Your task to perform on an android device: check data usage Image 0: 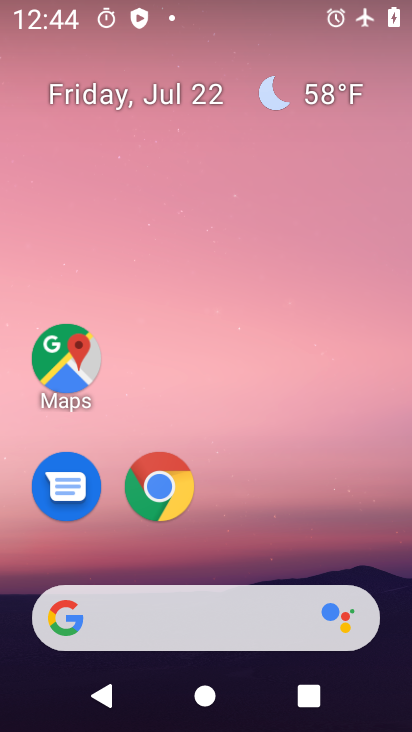
Step 0: drag from (388, 539) to (411, 360)
Your task to perform on an android device: check data usage Image 1: 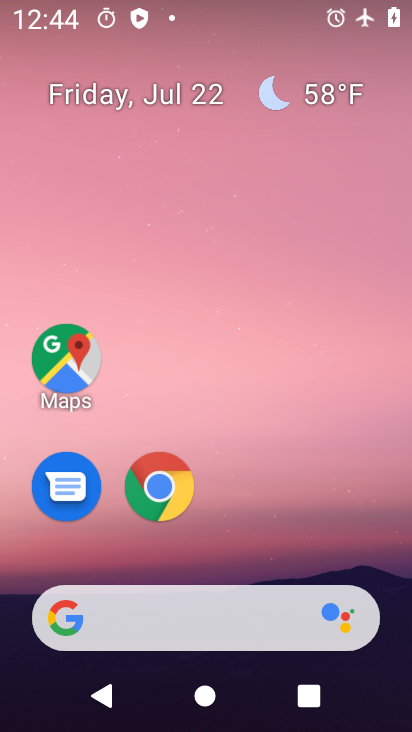
Step 1: drag from (288, 432) to (324, 25)
Your task to perform on an android device: check data usage Image 2: 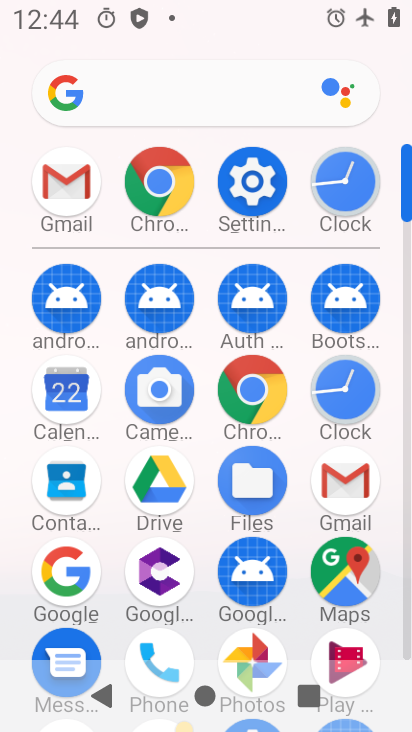
Step 2: click (261, 187)
Your task to perform on an android device: check data usage Image 3: 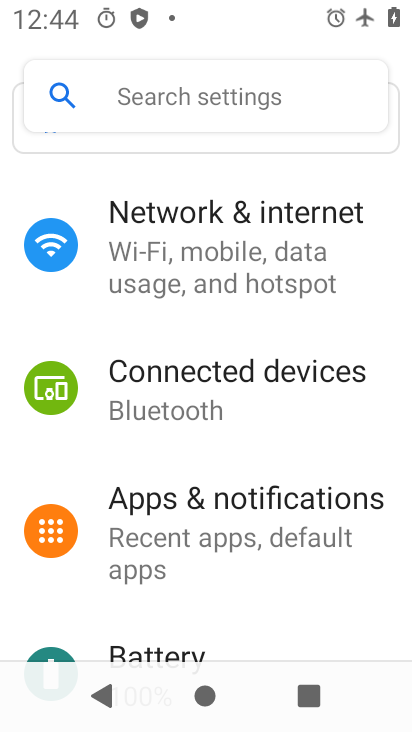
Step 3: drag from (357, 437) to (350, 347)
Your task to perform on an android device: check data usage Image 4: 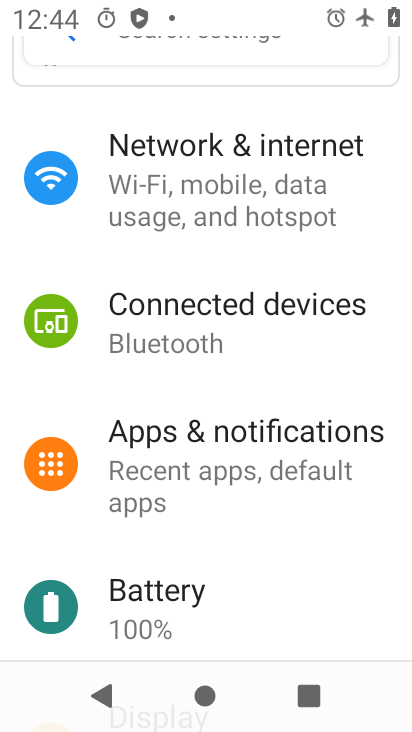
Step 4: drag from (351, 470) to (355, 332)
Your task to perform on an android device: check data usage Image 5: 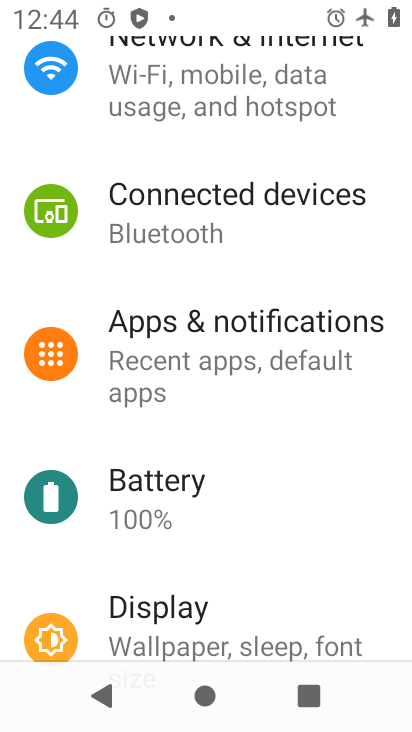
Step 5: drag from (345, 577) to (333, 402)
Your task to perform on an android device: check data usage Image 6: 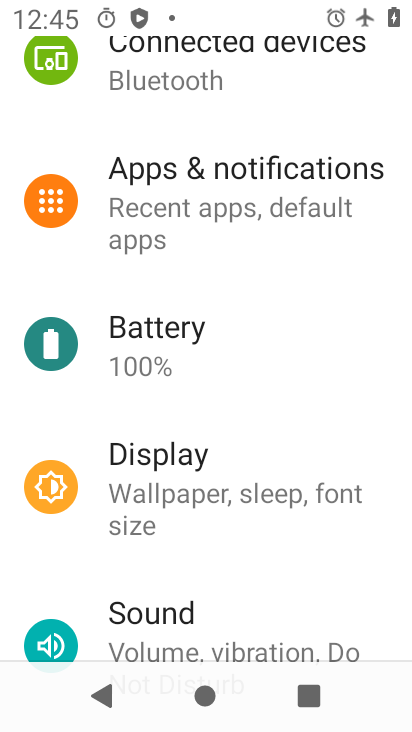
Step 6: drag from (316, 410) to (321, 296)
Your task to perform on an android device: check data usage Image 7: 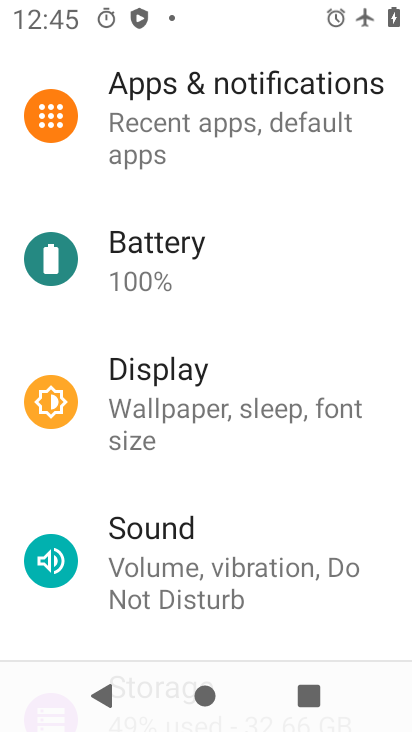
Step 7: drag from (350, 414) to (351, 292)
Your task to perform on an android device: check data usage Image 8: 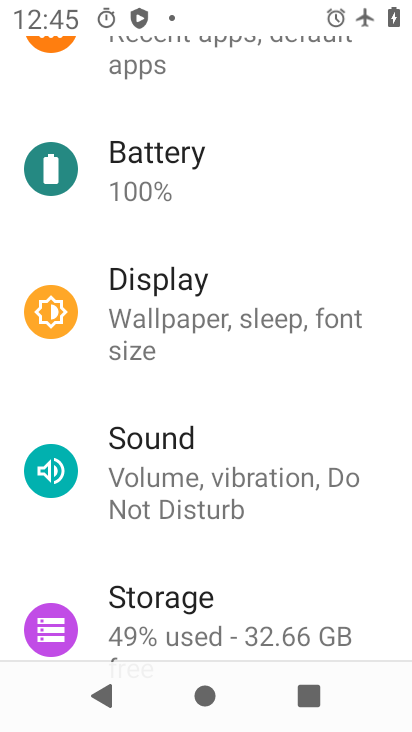
Step 8: drag from (330, 439) to (328, 343)
Your task to perform on an android device: check data usage Image 9: 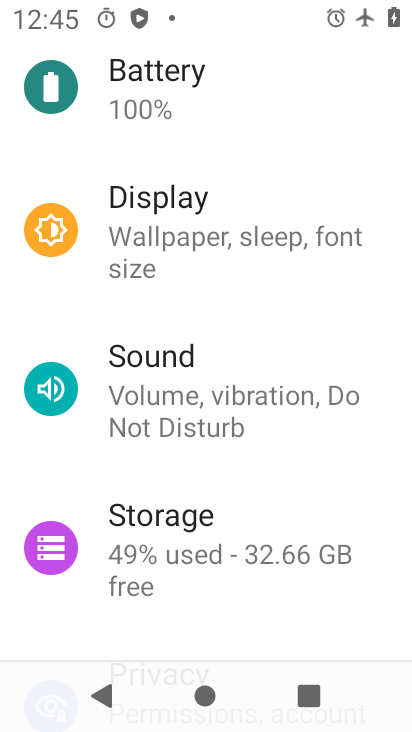
Step 9: drag from (360, 464) to (362, 389)
Your task to perform on an android device: check data usage Image 10: 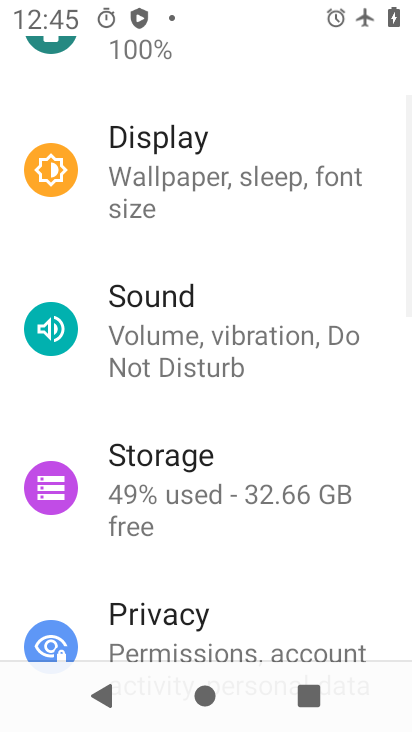
Step 10: drag from (350, 261) to (353, 367)
Your task to perform on an android device: check data usage Image 11: 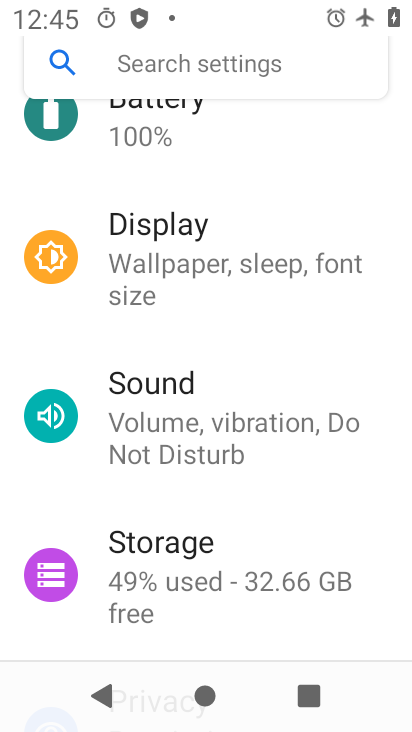
Step 11: drag from (345, 275) to (352, 353)
Your task to perform on an android device: check data usage Image 12: 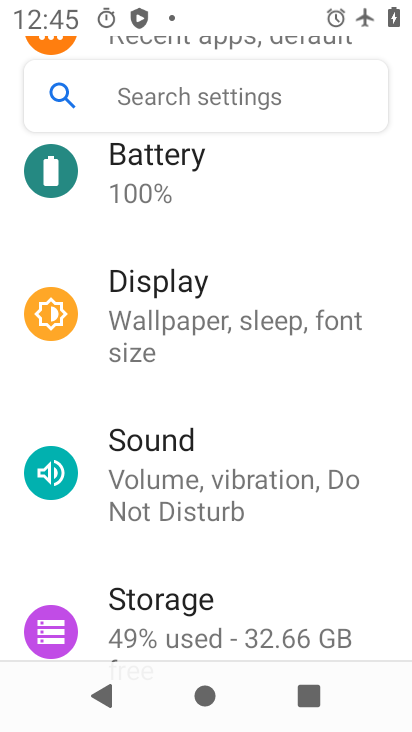
Step 12: drag from (331, 235) to (340, 368)
Your task to perform on an android device: check data usage Image 13: 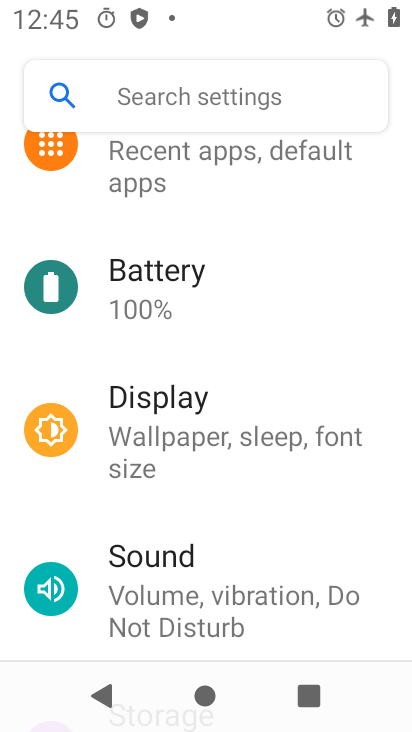
Step 13: drag from (344, 247) to (343, 398)
Your task to perform on an android device: check data usage Image 14: 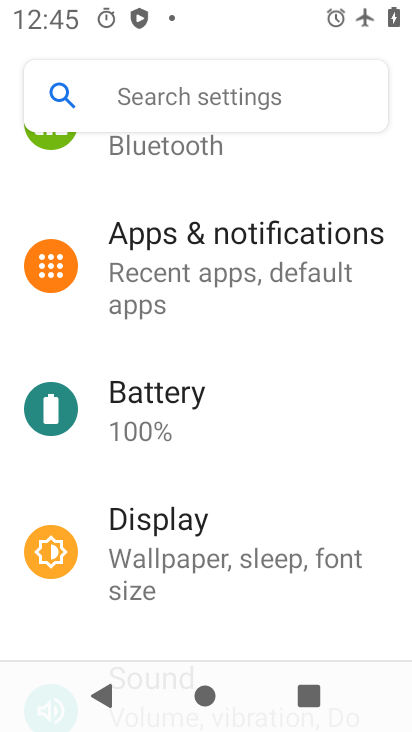
Step 14: drag from (352, 207) to (341, 395)
Your task to perform on an android device: check data usage Image 15: 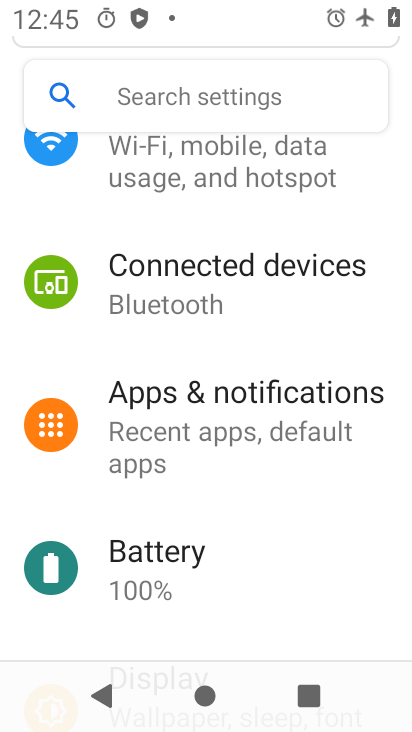
Step 15: drag from (366, 208) to (356, 339)
Your task to perform on an android device: check data usage Image 16: 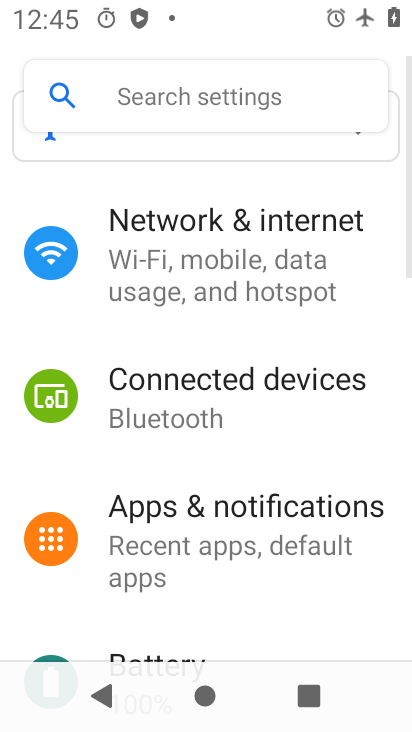
Step 16: click (299, 280)
Your task to perform on an android device: check data usage Image 17: 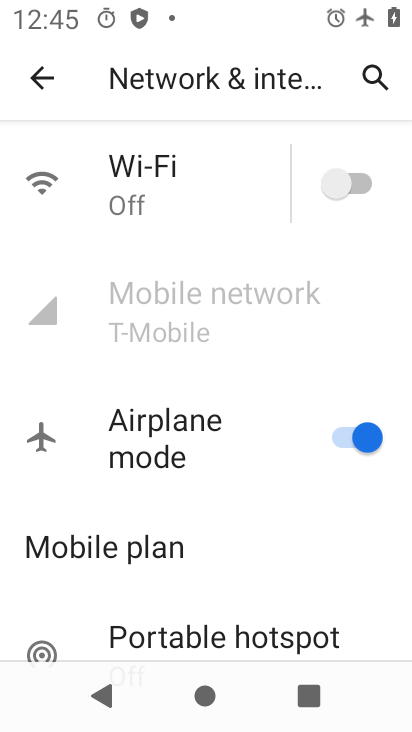
Step 17: task complete